Your task to perform on an android device: create a new album in the google photos Image 0: 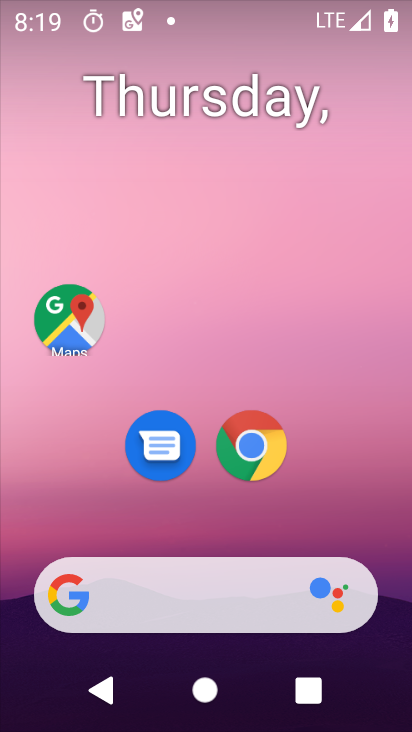
Step 0: drag from (197, 522) to (235, 179)
Your task to perform on an android device: create a new album in the google photos Image 1: 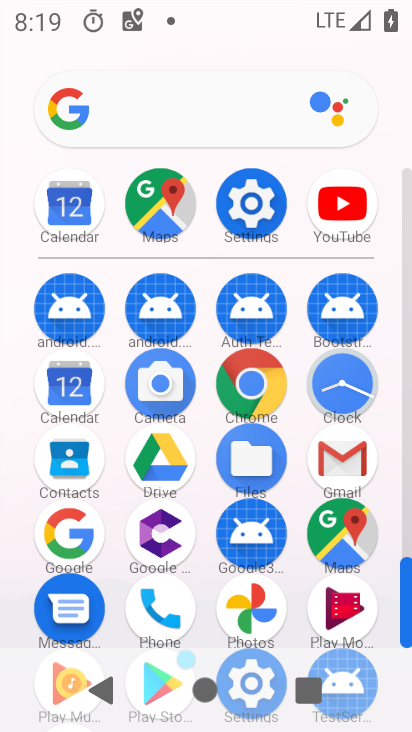
Step 1: drag from (195, 627) to (207, 283)
Your task to perform on an android device: create a new album in the google photos Image 2: 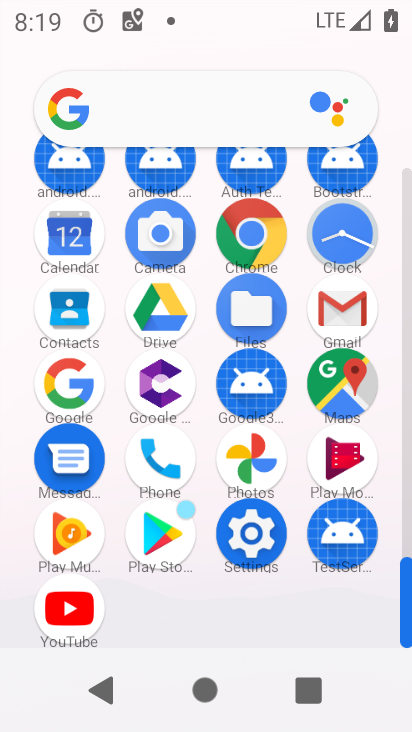
Step 2: click (257, 453)
Your task to perform on an android device: create a new album in the google photos Image 3: 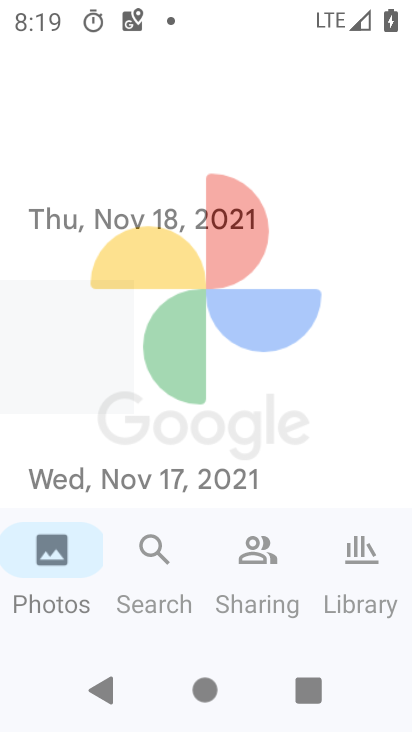
Step 3: drag from (256, 438) to (303, 226)
Your task to perform on an android device: create a new album in the google photos Image 4: 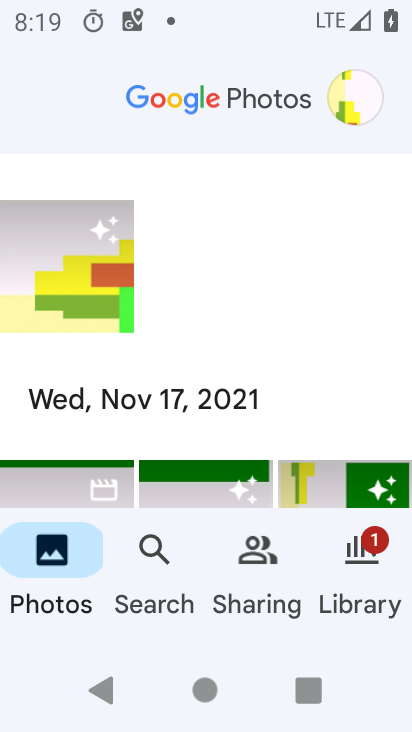
Step 4: drag from (210, 446) to (234, 196)
Your task to perform on an android device: create a new album in the google photos Image 5: 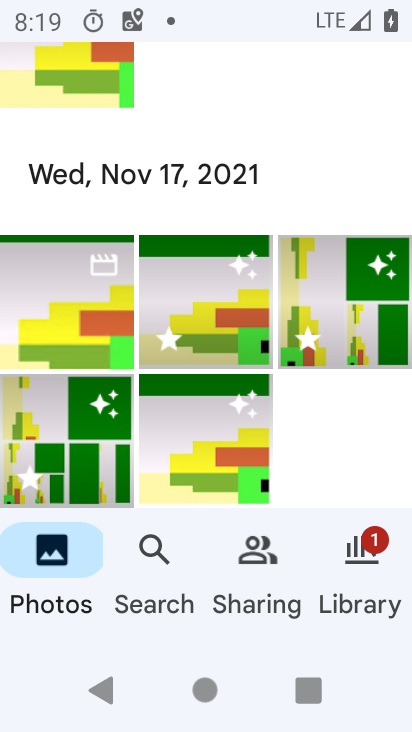
Step 5: drag from (276, 173) to (317, 629)
Your task to perform on an android device: create a new album in the google photos Image 6: 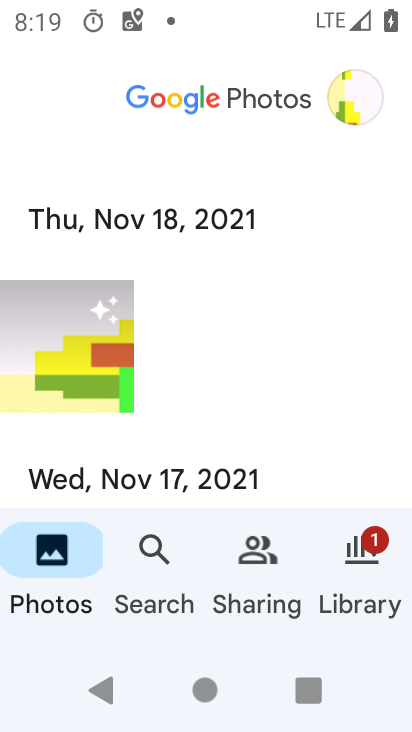
Step 6: click (364, 573)
Your task to perform on an android device: create a new album in the google photos Image 7: 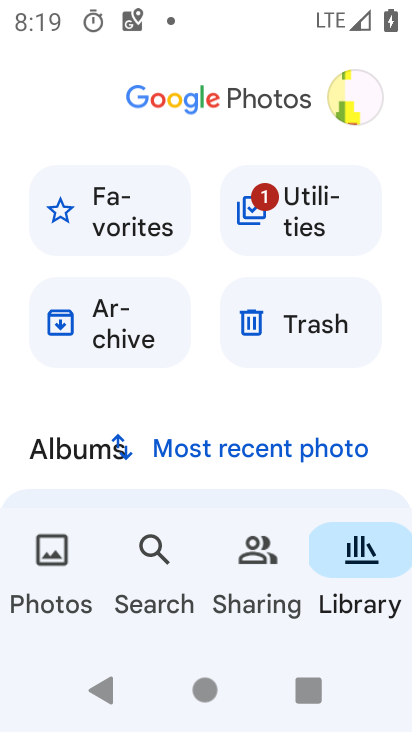
Step 7: drag from (231, 395) to (220, 187)
Your task to perform on an android device: create a new album in the google photos Image 8: 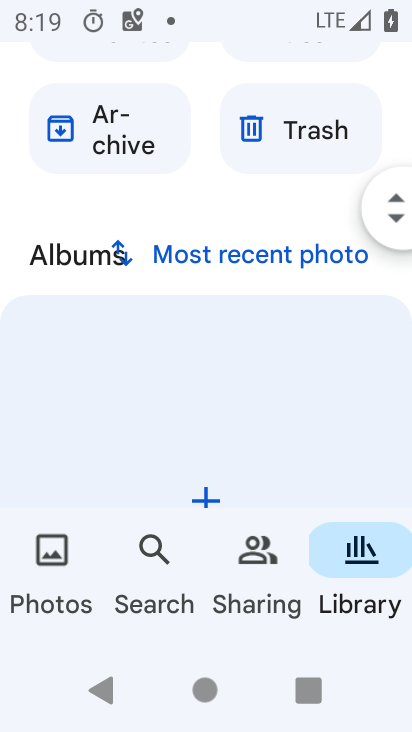
Step 8: click (208, 500)
Your task to perform on an android device: create a new album in the google photos Image 9: 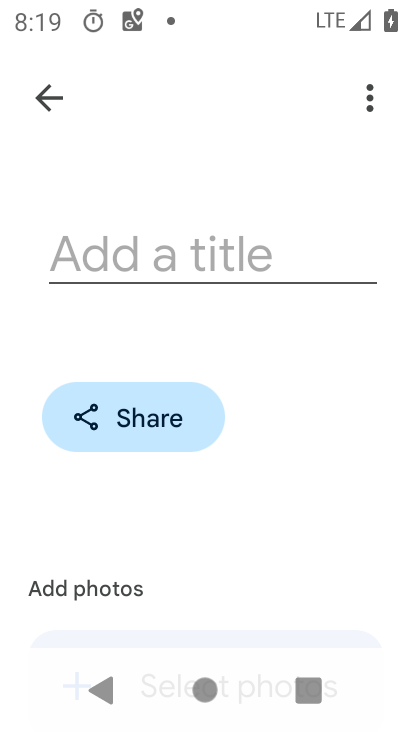
Step 9: click (158, 270)
Your task to perform on an android device: create a new album in the google photos Image 10: 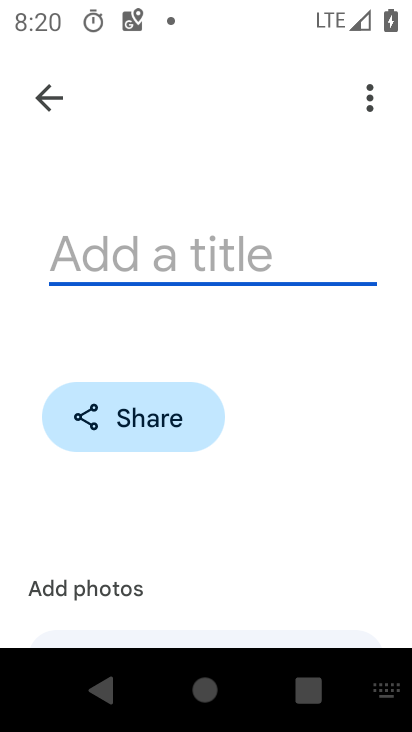
Step 10: type "jmj"
Your task to perform on an android device: create a new album in the google photos Image 11: 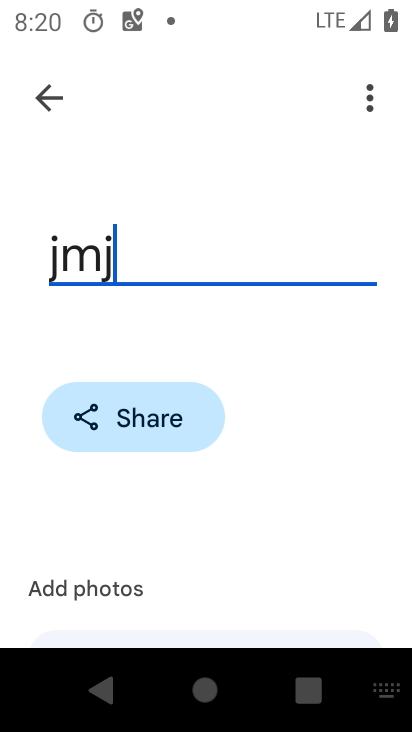
Step 11: drag from (257, 573) to (313, 122)
Your task to perform on an android device: create a new album in the google photos Image 12: 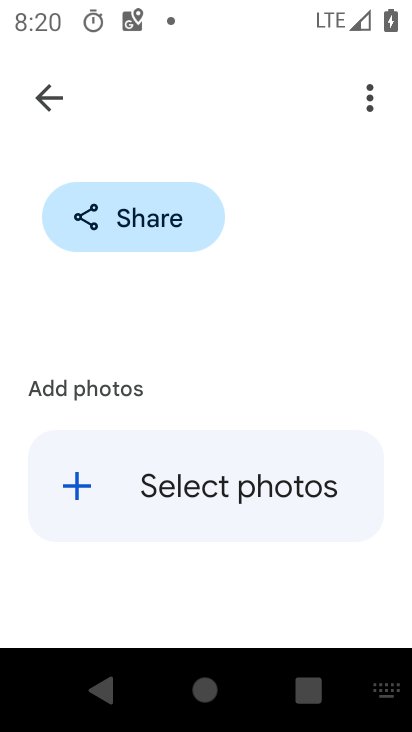
Step 12: click (64, 481)
Your task to perform on an android device: create a new album in the google photos Image 13: 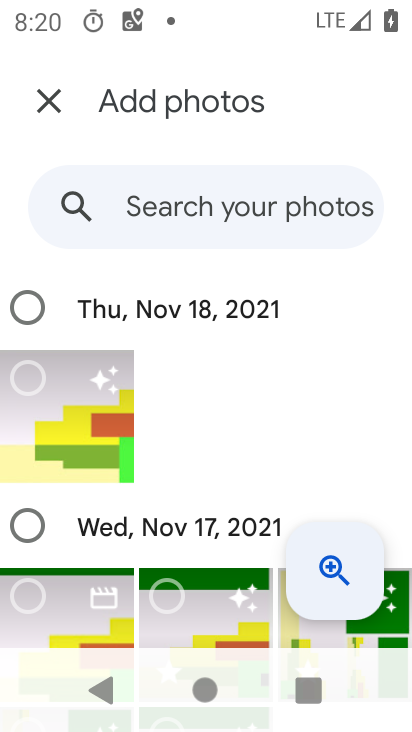
Step 13: click (77, 394)
Your task to perform on an android device: create a new album in the google photos Image 14: 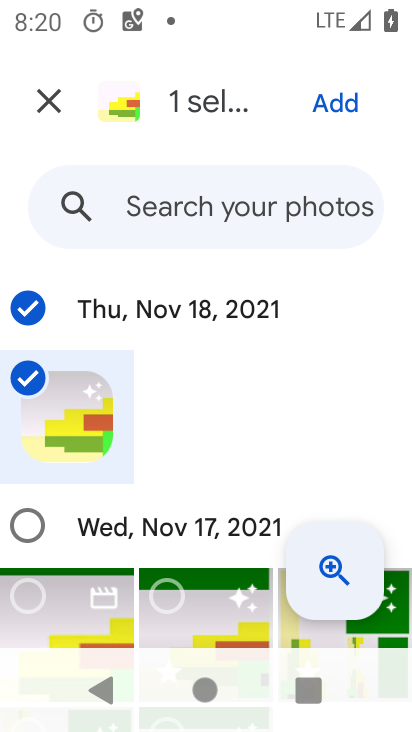
Step 14: click (53, 610)
Your task to perform on an android device: create a new album in the google photos Image 15: 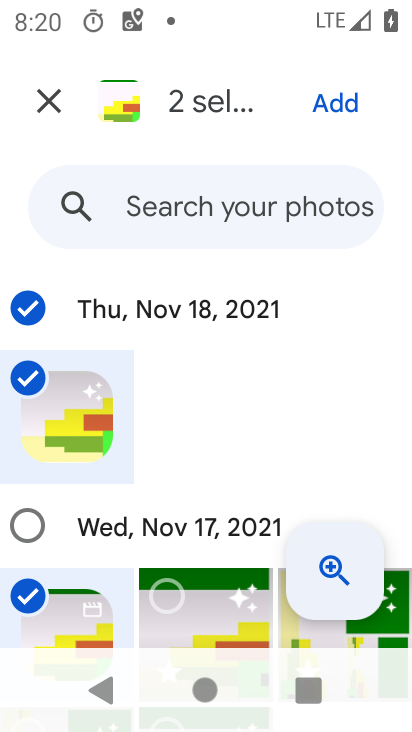
Step 15: click (173, 616)
Your task to perform on an android device: create a new album in the google photos Image 16: 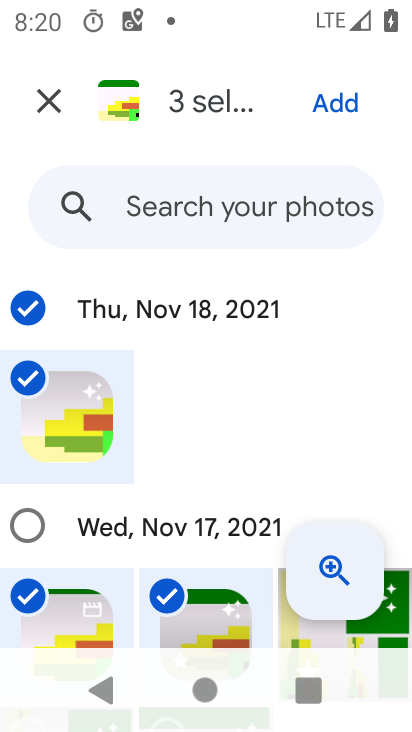
Step 16: click (300, 622)
Your task to perform on an android device: create a new album in the google photos Image 17: 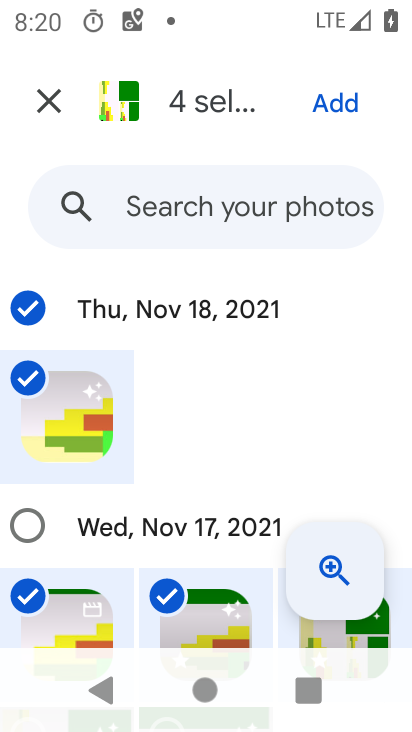
Step 17: drag from (192, 626) to (236, 227)
Your task to perform on an android device: create a new album in the google photos Image 18: 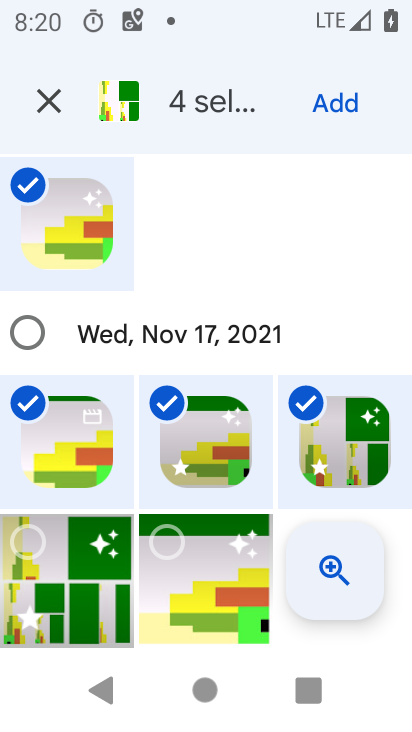
Step 18: click (340, 109)
Your task to perform on an android device: create a new album in the google photos Image 19: 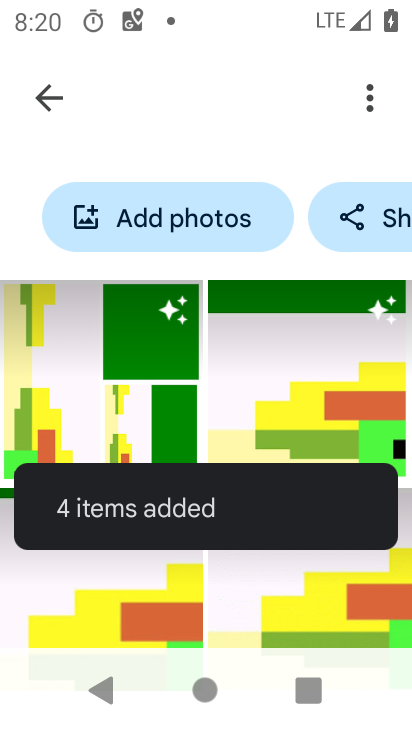
Step 19: task complete